Your task to perform on an android device: Go to Google maps Image 0: 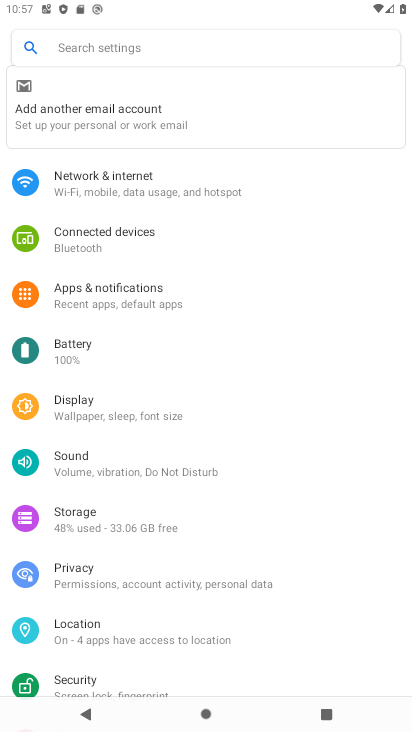
Step 0: press home button
Your task to perform on an android device: Go to Google maps Image 1: 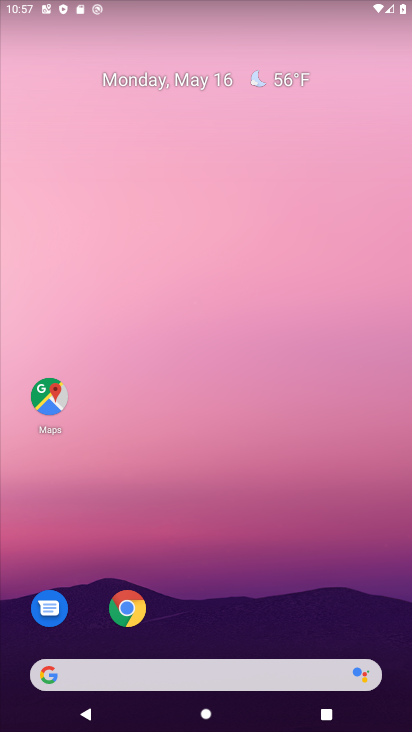
Step 1: drag from (316, 581) to (283, 60)
Your task to perform on an android device: Go to Google maps Image 2: 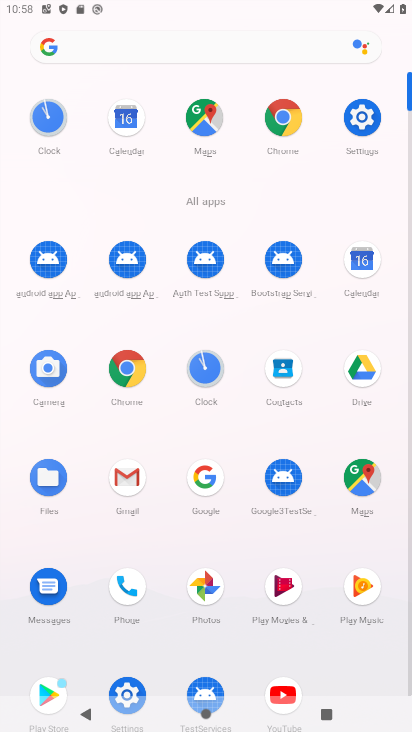
Step 2: click (369, 497)
Your task to perform on an android device: Go to Google maps Image 3: 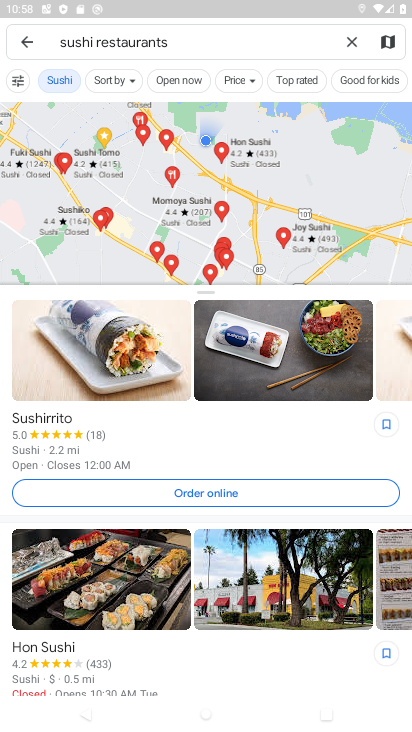
Step 3: task complete